Your task to perform on an android device: Open Maps and search for coffee Image 0: 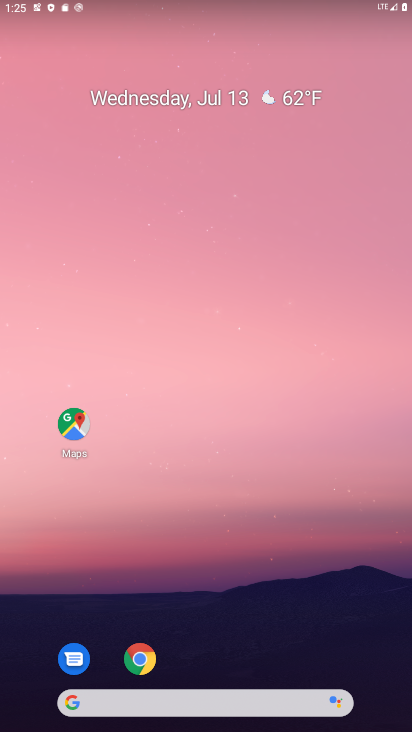
Step 0: drag from (215, 729) to (179, 127)
Your task to perform on an android device: Open Maps and search for coffee Image 1: 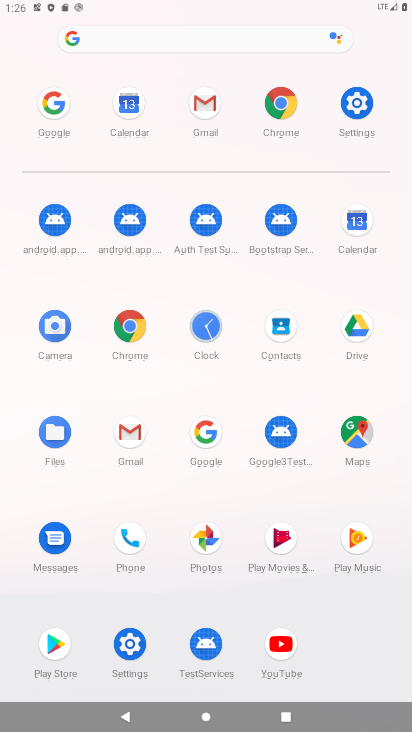
Step 1: click (363, 428)
Your task to perform on an android device: Open Maps and search for coffee Image 2: 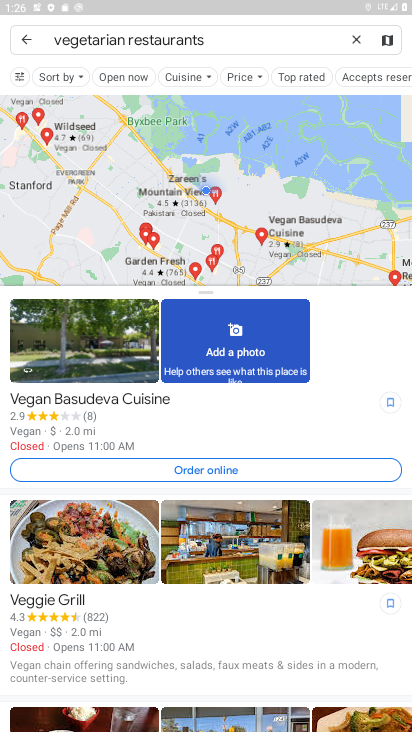
Step 2: click (347, 37)
Your task to perform on an android device: Open Maps and search for coffee Image 3: 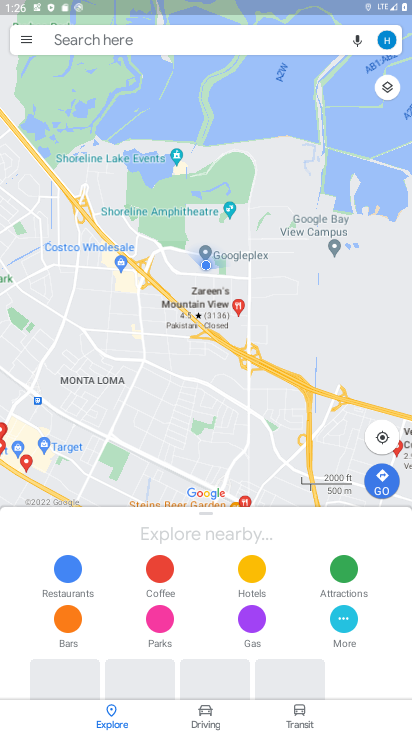
Step 3: click (161, 41)
Your task to perform on an android device: Open Maps and search for coffee Image 4: 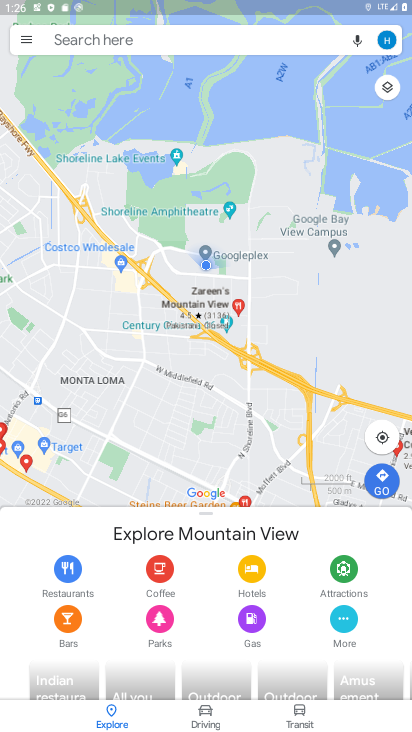
Step 4: click (176, 35)
Your task to perform on an android device: Open Maps and search for coffee Image 5: 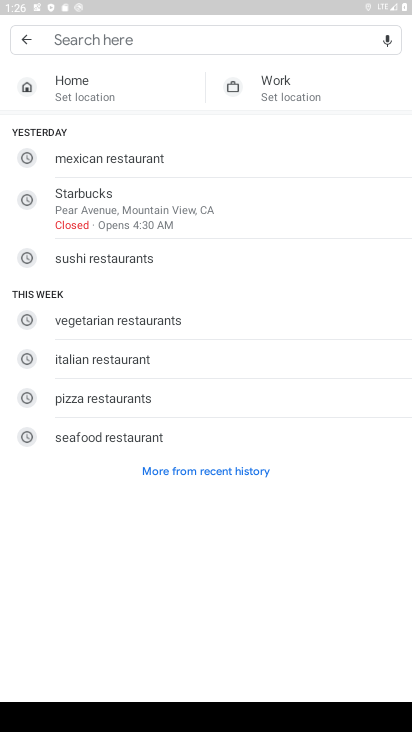
Step 5: type "coffee"
Your task to perform on an android device: Open Maps and search for coffee Image 6: 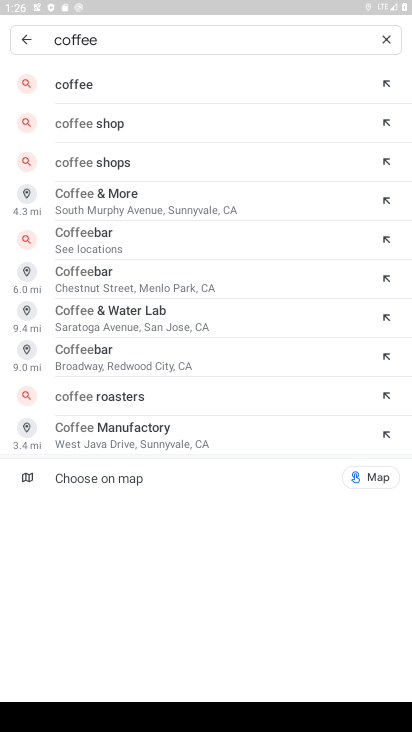
Step 6: click (80, 81)
Your task to perform on an android device: Open Maps and search for coffee Image 7: 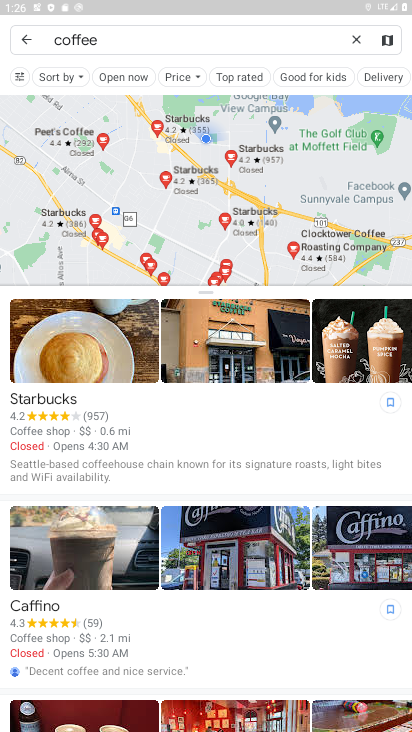
Step 7: task complete